Your task to perform on an android device: turn on translation in the chrome app Image 0: 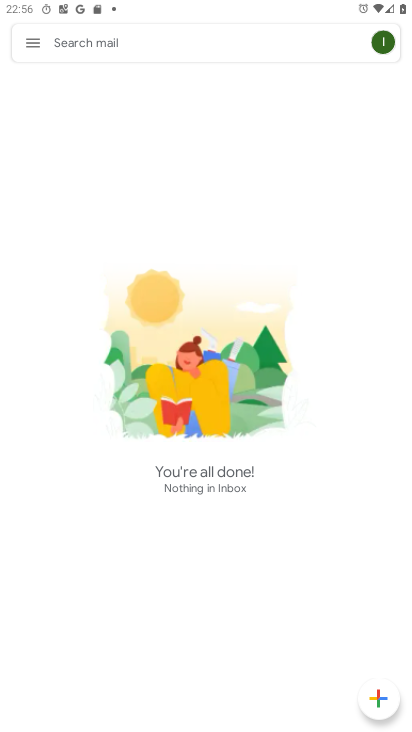
Step 0: press home button
Your task to perform on an android device: turn on translation in the chrome app Image 1: 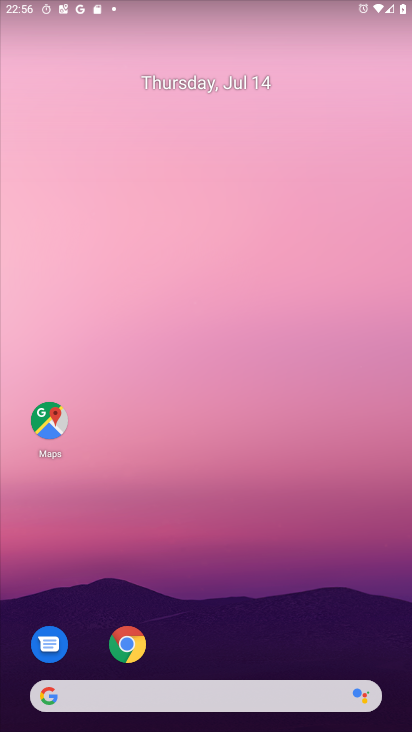
Step 1: click (127, 642)
Your task to perform on an android device: turn on translation in the chrome app Image 2: 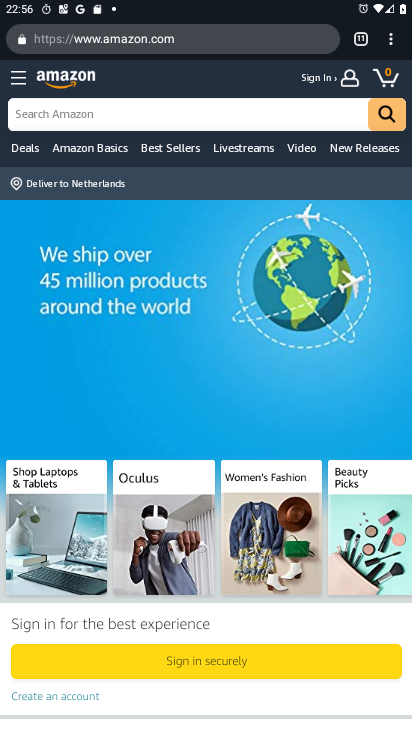
Step 2: click (395, 41)
Your task to perform on an android device: turn on translation in the chrome app Image 3: 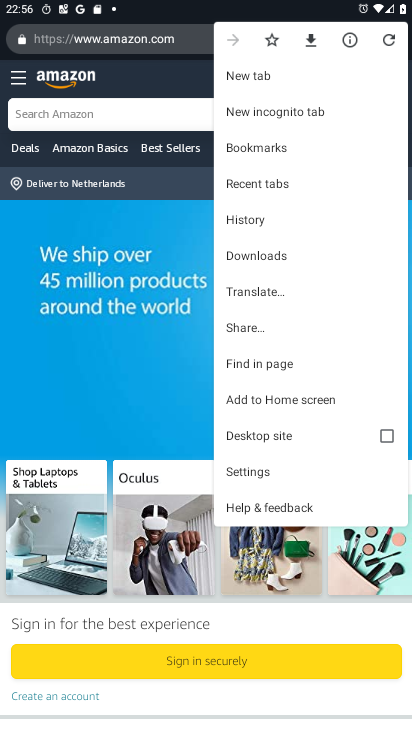
Step 3: click (269, 465)
Your task to perform on an android device: turn on translation in the chrome app Image 4: 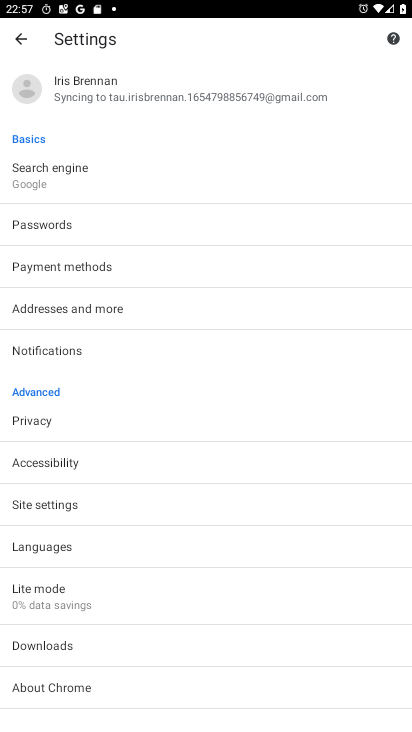
Step 4: click (104, 557)
Your task to perform on an android device: turn on translation in the chrome app Image 5: 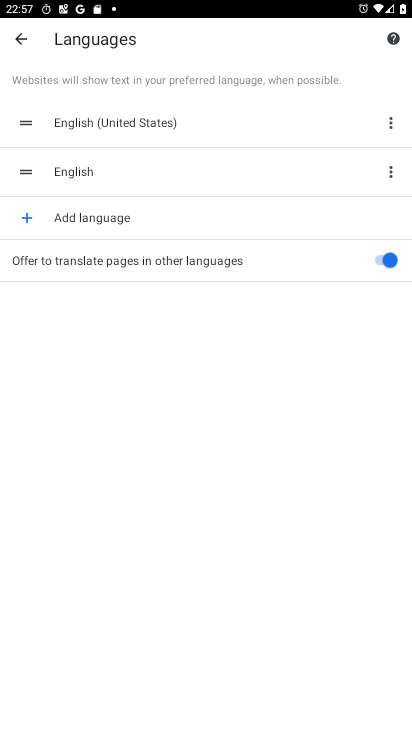
Step 5: task complete